Your task to perform on an android device: toggle airplane mode Image 0: 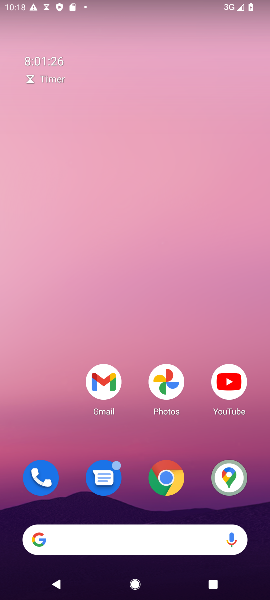
Step 0: drag from (192, 365) to (166, 51)
Your task to perform on an android device: toggle airplane mode Image 1: 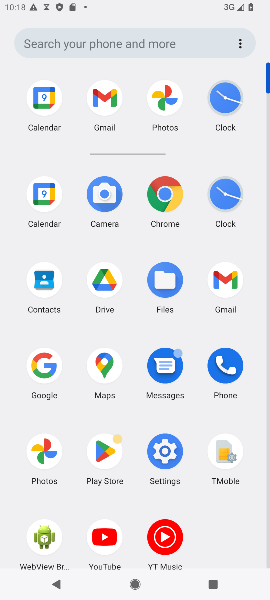
Step 1: click (175, 438)
Your task to perform on an android device: toggle airplane mode Image 2: 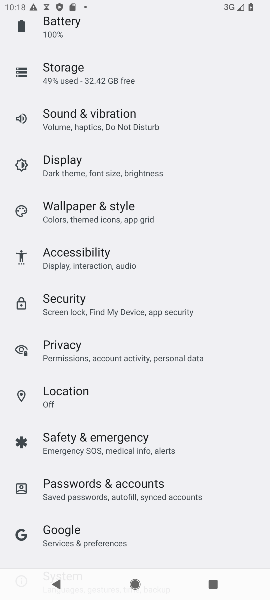
Step 2: drag from (94, 91) to (132, 457)
Your task to perform on an android device: toggle airplane mode Image 3: 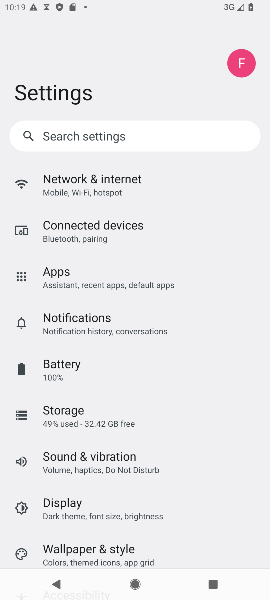
Step 3: click (104, 193)
Your task to perform on an android device: toggle airplane mode Image 4: 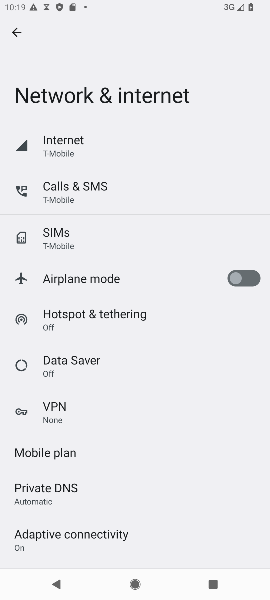
Step 4: click (249, 282)
Your task to perform on an android device: toggle airplane mode Image 5: 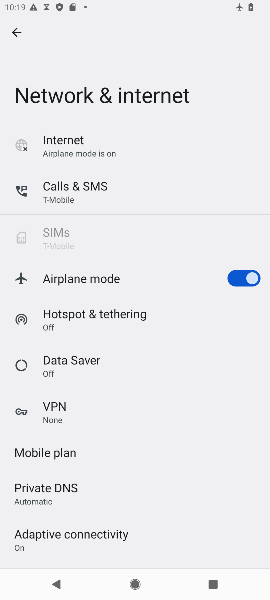
Step 5: task complete